Your task to perform on an android device: Search for Mexican restaurants on Maps Image 0: 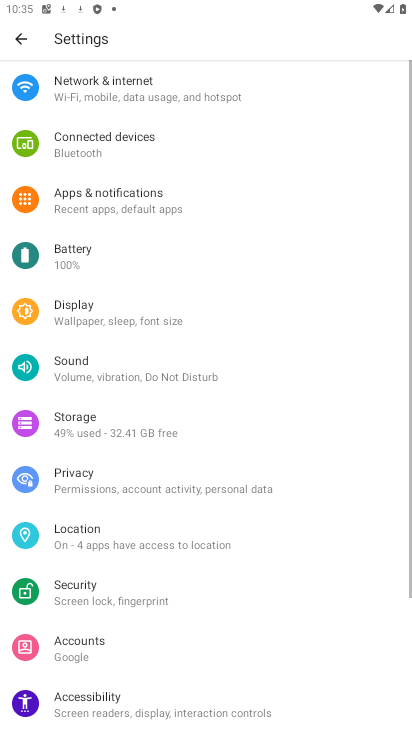
Step 0: press home button
Your task to perform on an android device: Search for Mexican restaurants on Maps Image 1: 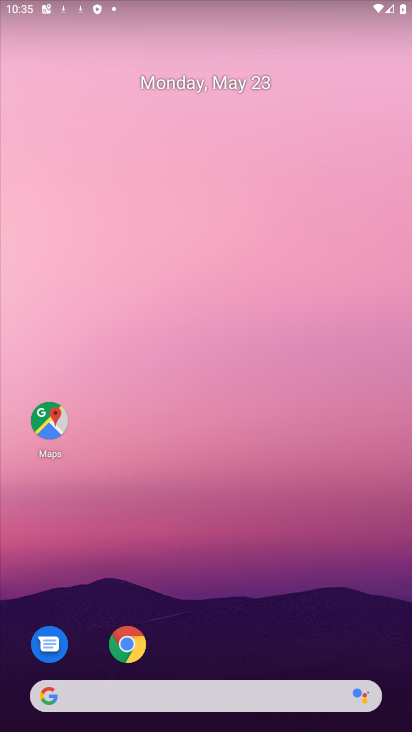
Step 1: drag from (240, 721) to (184, 96)
Your task to perform on an android device: Search for Mexican restaurants on Maps Image 2: 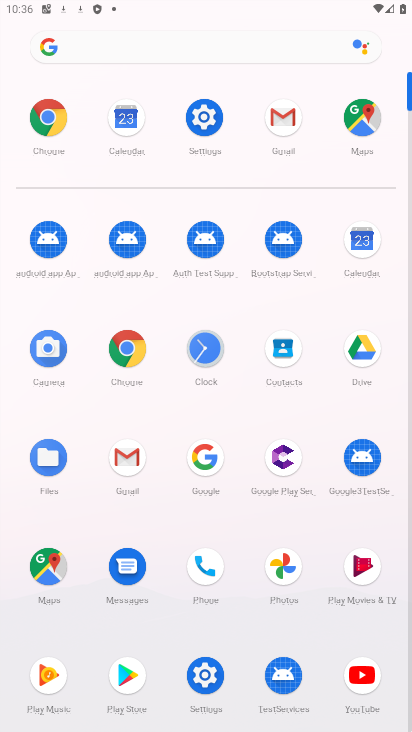
Step 2: click (357, 123)
Your task to perform on an android device: Search for Mexican restaurants on Maps Image 3: 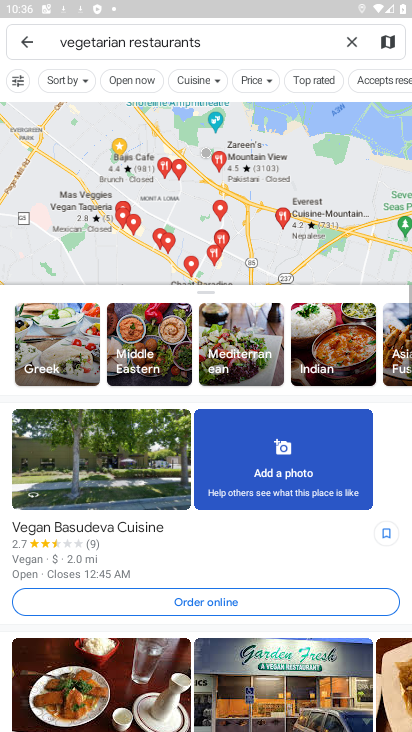
Step 3: click (22, 42)
Your task to perform on an android device: Search for Mexican restaurants on Maps Image 4: 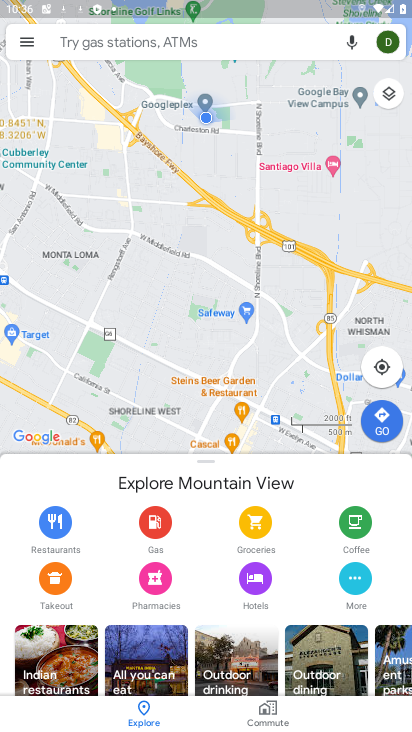
Step 4: click (24, 42)
Your task to perform on an android device: Search for Mexican restaurants on Maps Image 5: 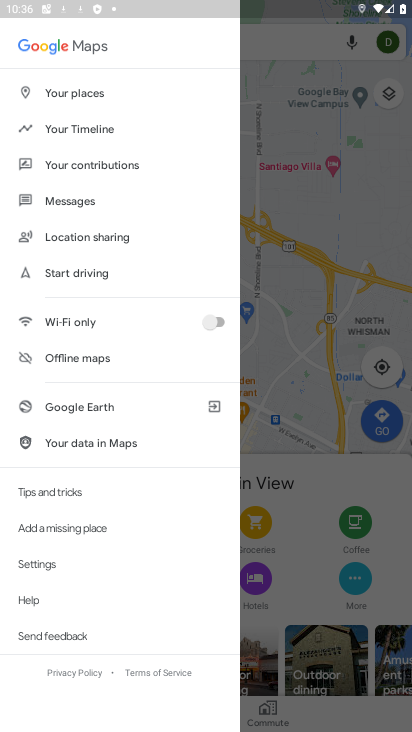
Step 5: click (352, 208)
Your task to perform on an android device: Search for Mexican restaurants on Maps Image 6: 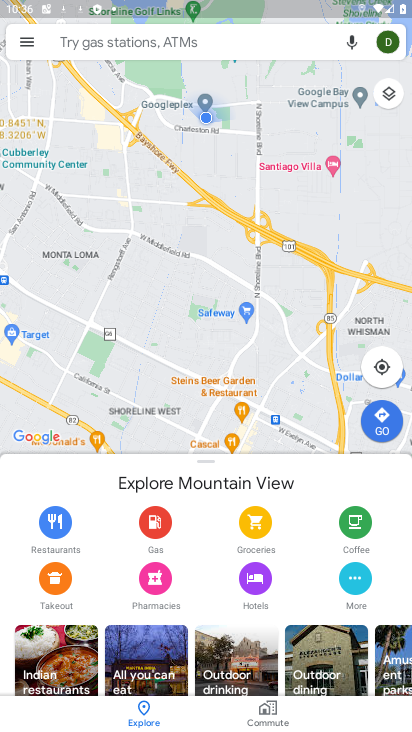
Step 6: click (184, 37)
Your task to perform on an android device: Search for Mexican restaurants on Maps Image 7: 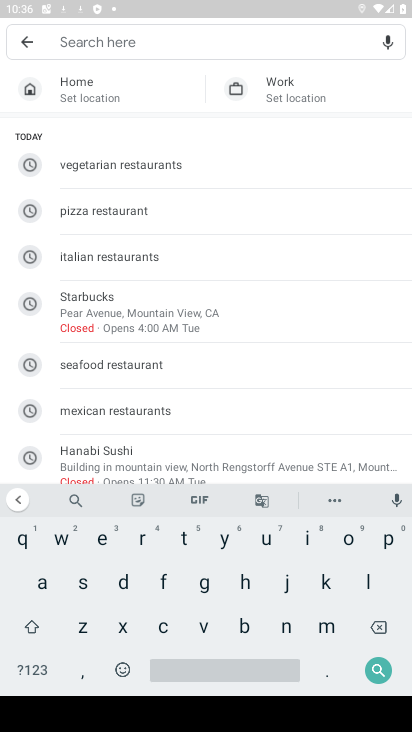
Step 7: click (319, 619)
Your task to perform on an android device: Search for Mexican restaurants on Maps Image 8: 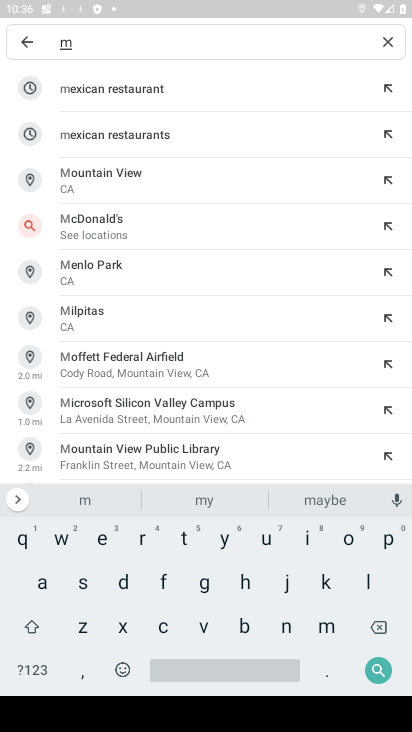
Step 8: click (109, 97)
Your task to perform on an android device: Search for Mexican restaurants on Maps Image 9: 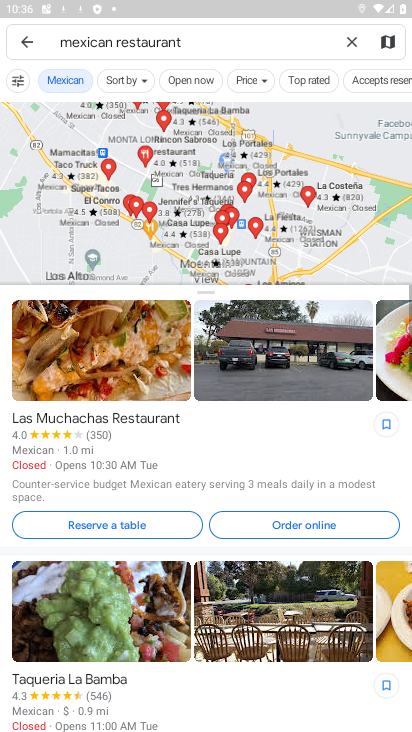
Step 9: task complete